Your task to perform on an android device: Open Wikipedia Image 0: 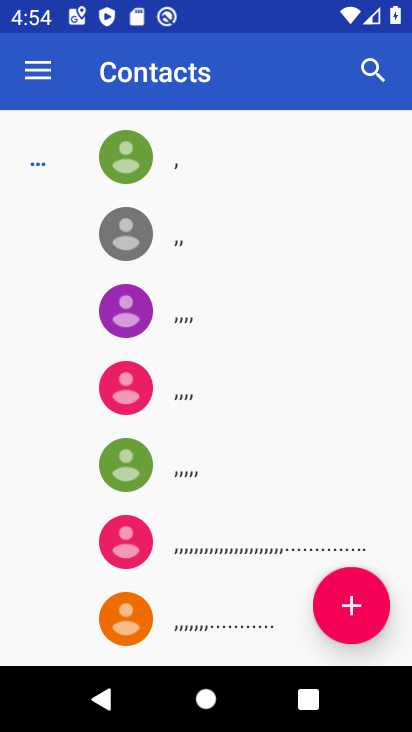
Step 0: press home button
Your task to perform on an android device: Open Wikipedia Image 1: 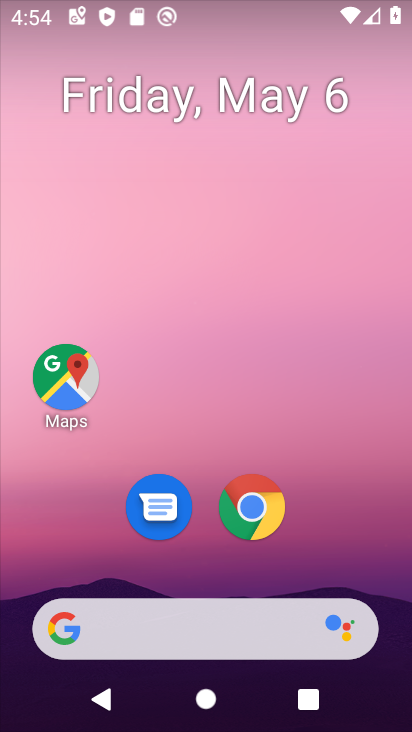
Step 1: click (255, 509)
Your task to perform on an android device: Open Wikipedia Image 2: 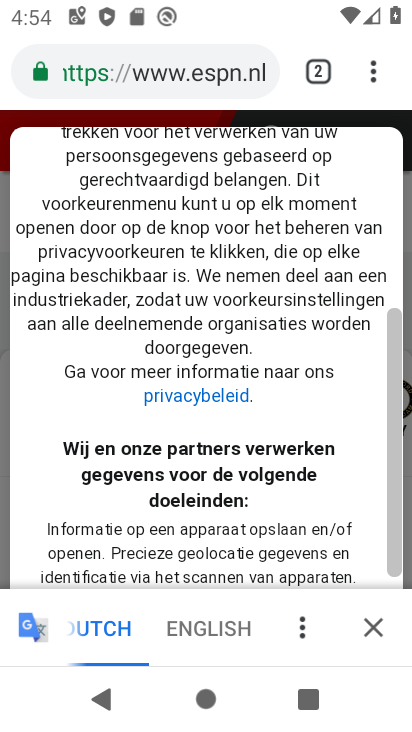
Step 2: click (375, 73)
Your task to perform on an android device: Open Wikipedia Image 3: 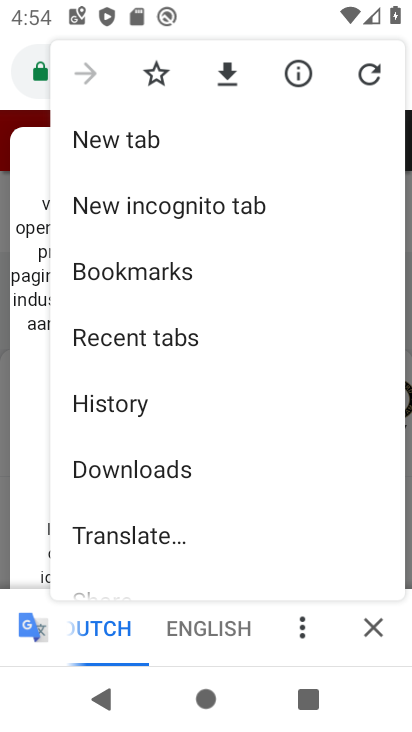
Step 3: click (142, 136)
Your task to perform on an android device: Open Wikipedia Image 4: 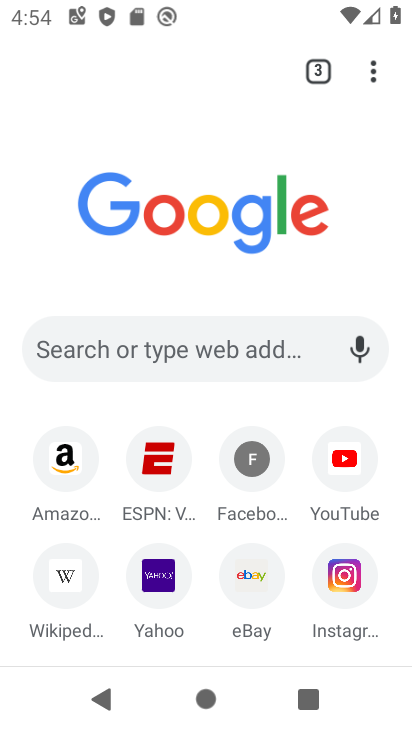
Step 4: click (67, 593)
Your task to perform on an android device: Open Wikipedia Image 5: 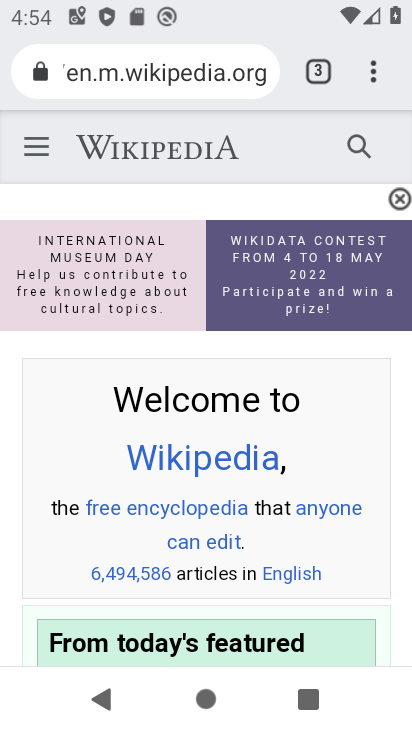
Step 5: task complete